Your task to perform on an android device: Search for Italian restaurants on Maps Image 0: 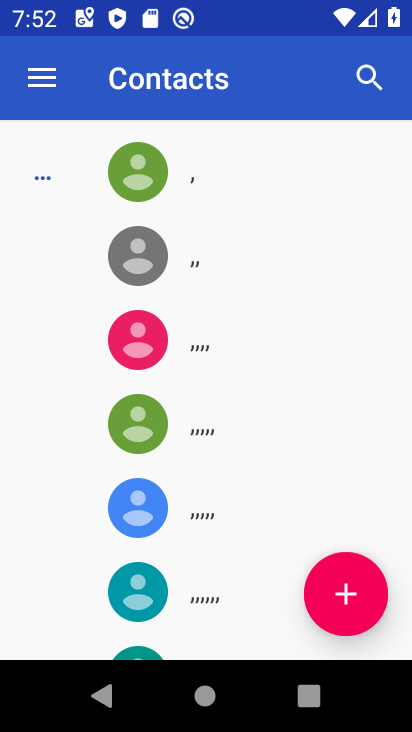
Step 0: press home button
Your task to perform on an android device: Search for Italian restaurants on Maps Image 1: 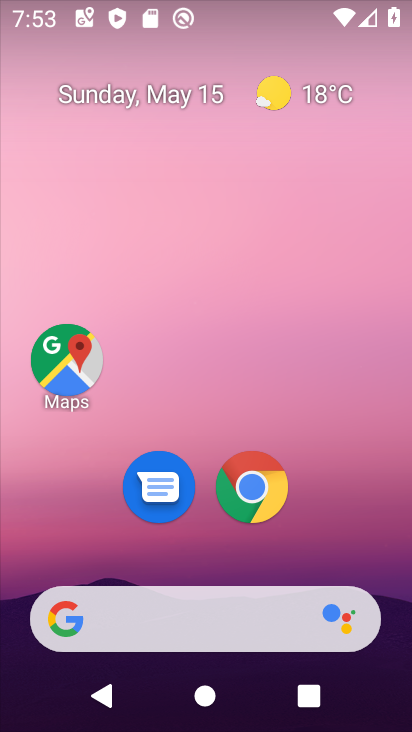
Step 1: click (93, 362)
Your task to perform on an android device: Search for Italian restaurants on Maps Image 2: 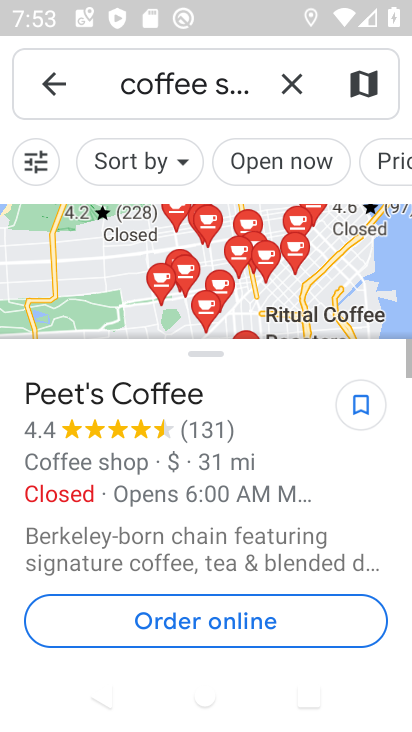
Step 2: click (291, 81)
Your task to perform on an android device: Search for Italian restaurants on Maps Image 3: 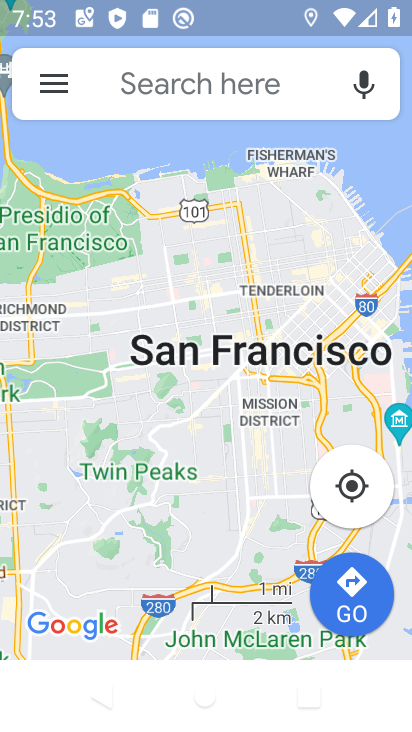
Step 3: click (88, 82)
Your task to perform on an android device: Search for Italian restaurants on Maps Image 4: 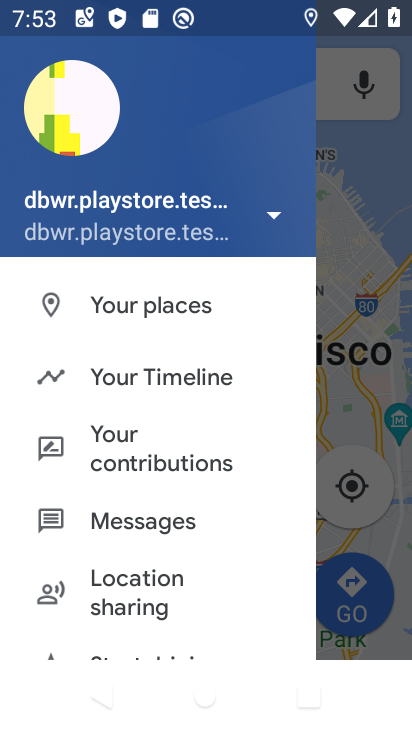
Step 4: click (368, 372)
Your task to perform on an android device: Search for Italian restaurants on Maps Image 5: 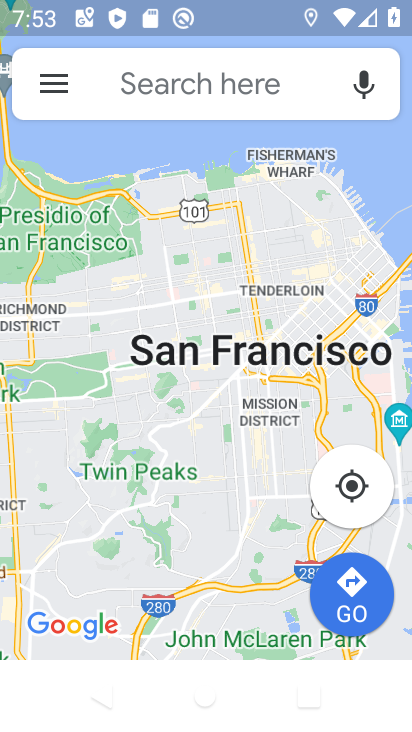
Step 5: click (112, 83)
Your task to perform on an android device: Search for Italian restaurants on Maps Image 6: 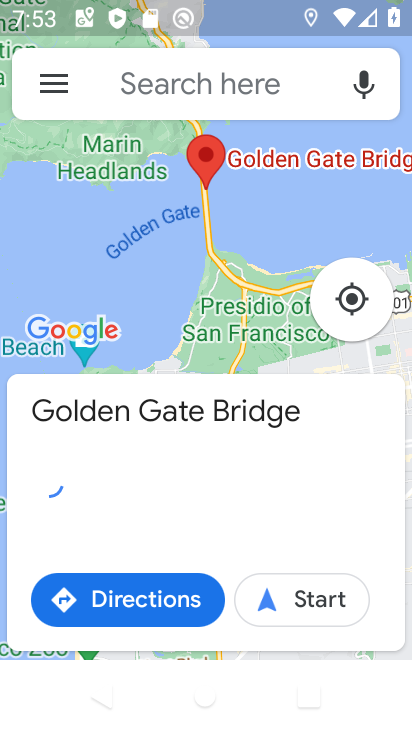
Step 6: click (126, 83)
Your task to perform on an android device: Search for Italian restaurants on Maps Image 7: 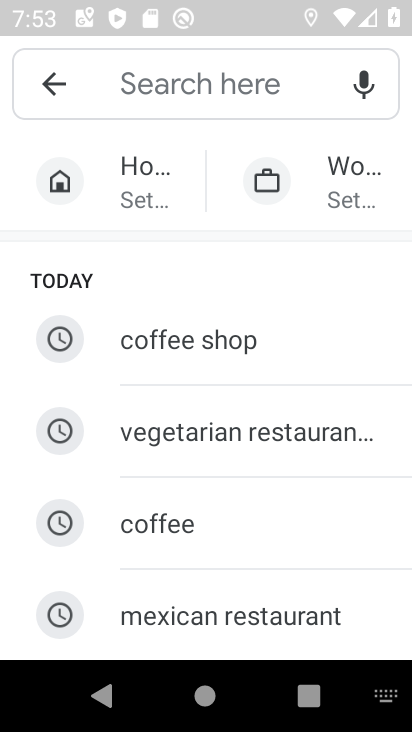
Step 7: type " Italian restaurants"
Your task to perform on an android device: Search for Italian restaurants on Maps Image 8: 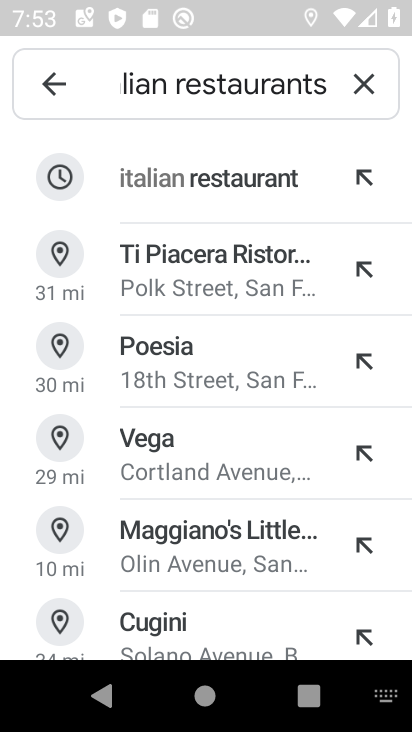
Step 8: click (194, 183)
Your task to perform on an android device: Search for Italian restaurants on Maps Image 9: 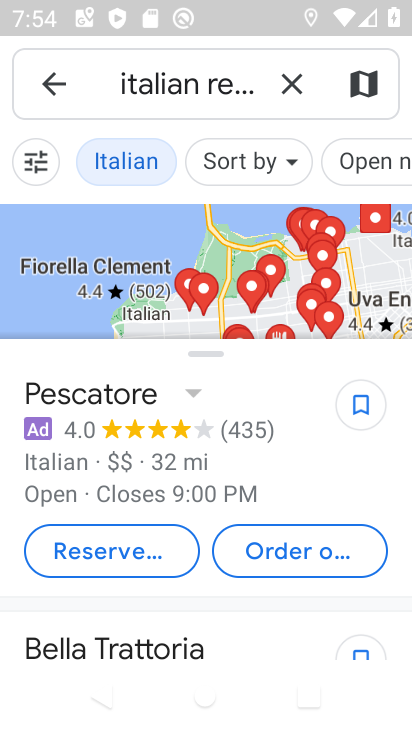
Step 9: task complete